Your task to perform on an android device: Go to network settings Image 0: 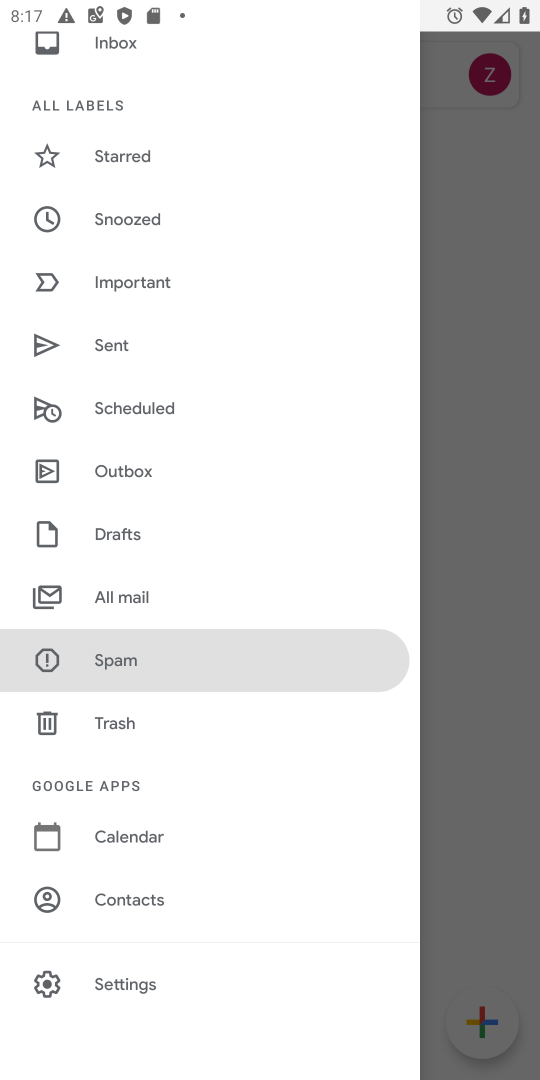
Step 0: press home button
Your task to perform on an android device: Go to network settings Image 1: 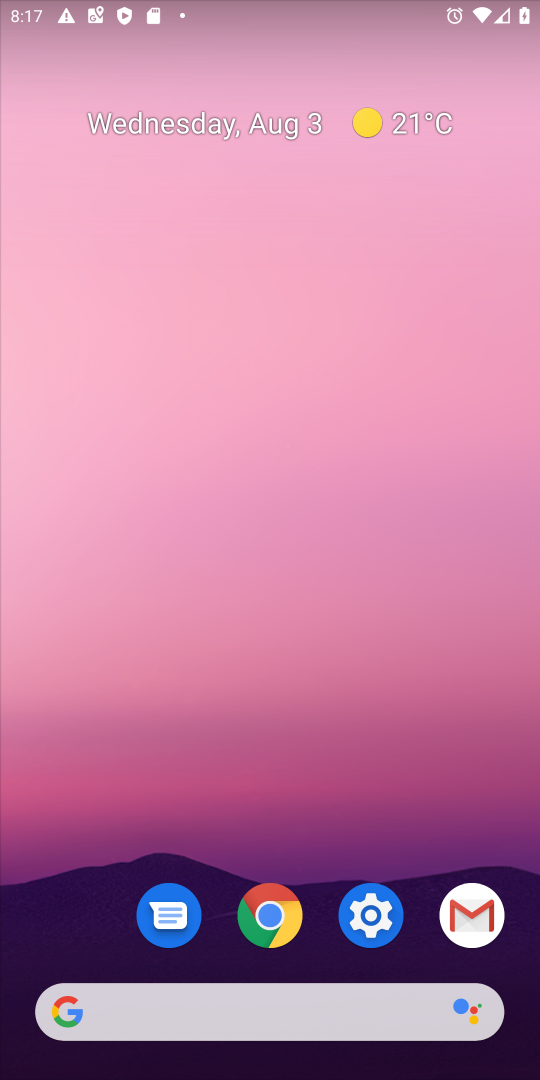
Step 1: drag from (309, 1035) to (256, 385)
Your task to perform on an android device: Go to network settings Image 2: 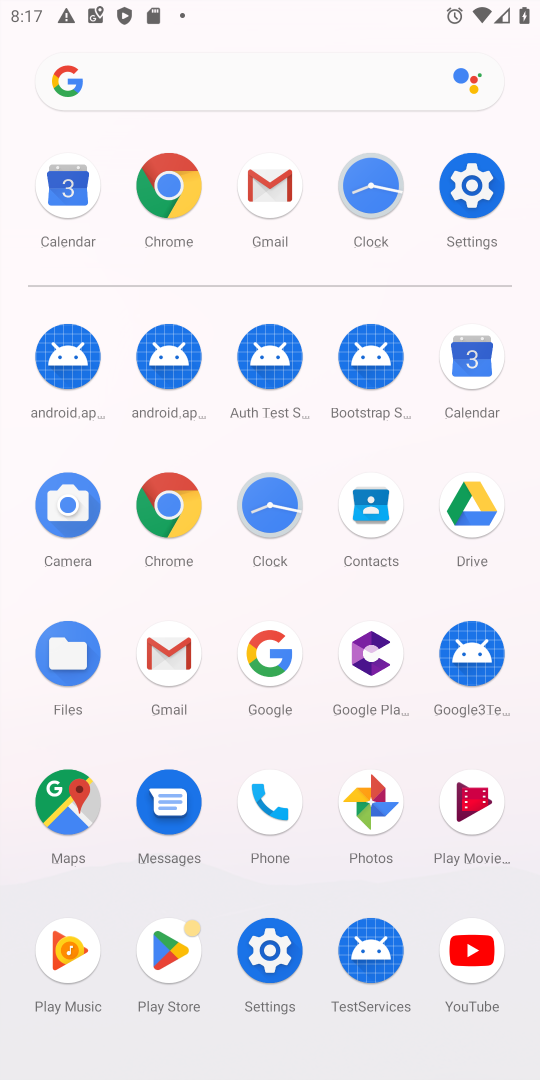
Step 2: click (476, 196)
Your task to perform on an android device: Go to network settings Image 3: 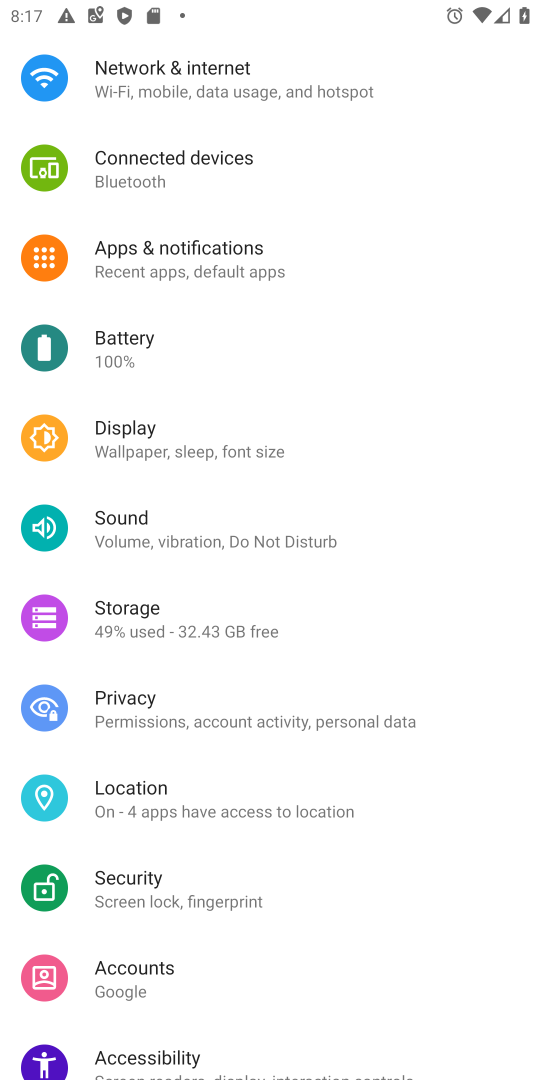
Step 3: click (236, 105)
Your task to perform on an android device: Go to network settings Image 4: 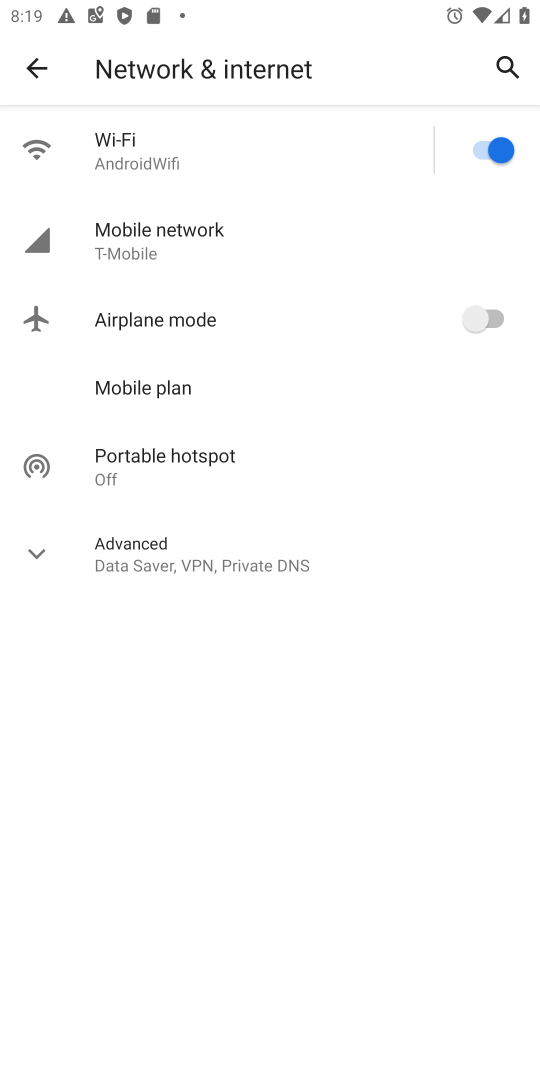
Step 4: task complete